Your task to perform on an android device: Open Youtube and go to the subscriptions tab Image 0: 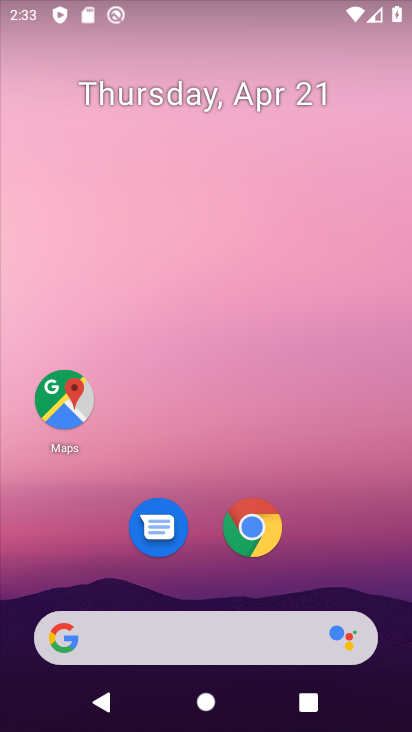
Step 0: drag from (196, 609) to (169, 19)
Your task to perform on an android device: Open Youtube and go to the subscriptions tab Image 1: 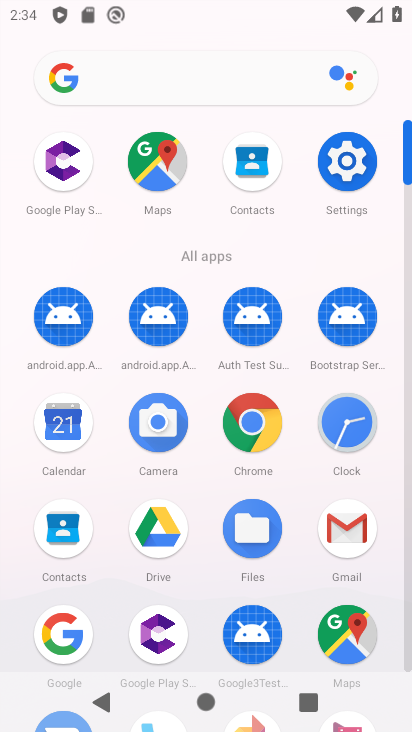
Step 1: drag from (208, 638) to (208, 176)
Your task to perform on an android device: Open Youtube and go to the subscriptions tab Image 2: 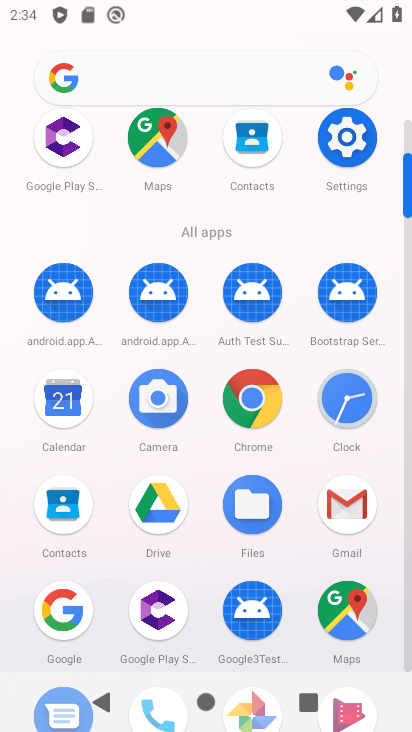
Step 2: drag from (187, 616) to (229, 225)
Your task to perform on an android device: Open Youtube and go to the subscriptions tab Image 3: 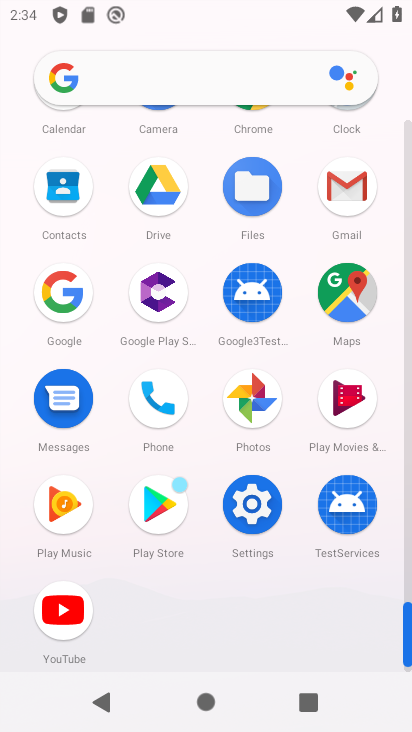
Step 3: click (68, 613)
Your task to perform on an android device: Open Youtube and go to the subscriptions tab Image 4: 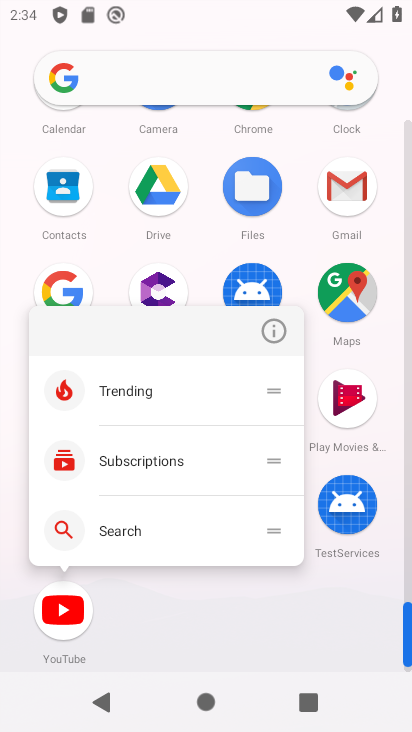
Step 4: click (69, 612)
Your task to perform on an android device: Open Youtube and go to the subscriptions tab Image 5: 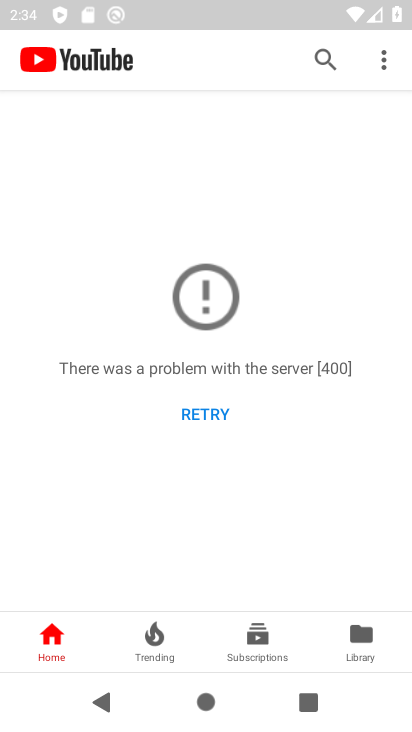
Step 5: click (249, 641)
Your task to perform on an android device: Open Youtube and go to the subscriptions tab Image 6: 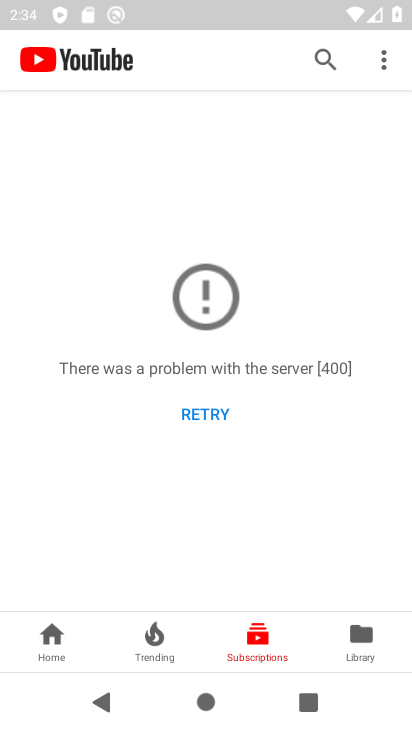
Step 6: task complete